Your task to perform on an android device: toggle wifi Image 0: 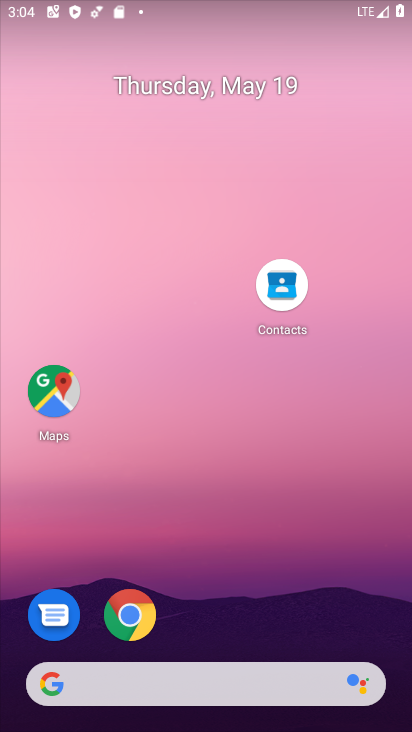
Step 0: drag from (271, 615) to (237, 133)
Your task to perform on an android device: toggle wifi Image 1: 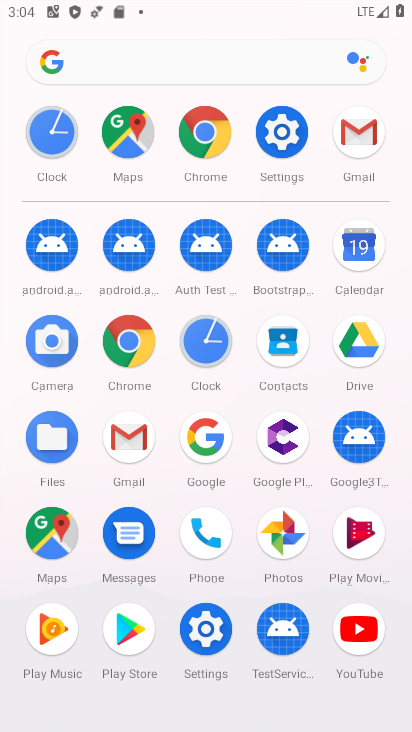
Step 1: click (291, 130)
Your task to perform on an android device: toggle wifi Image 2: 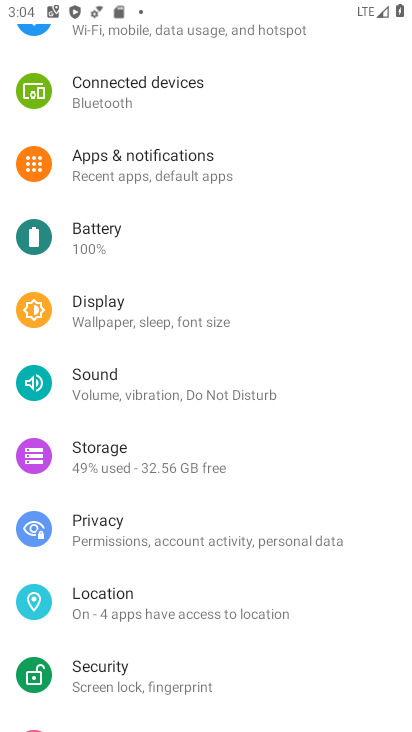
Step 2: drag from (272, 195) to (253, 666)
Your task to perform on an android device: toggle wifi Image 3: 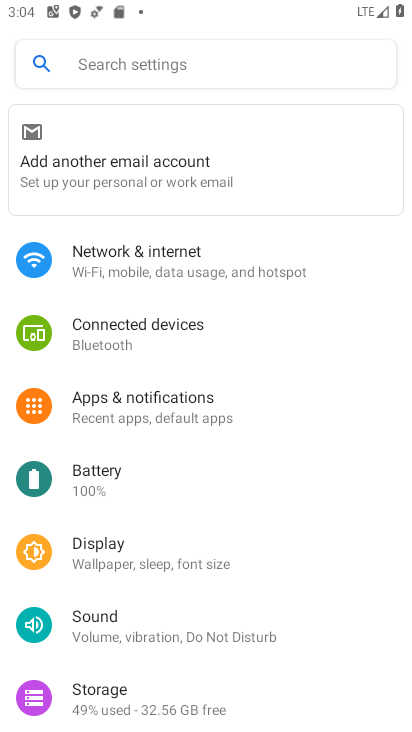
Step 3: click (156, 258)
Your task to perform on an android device: toggle wifi Image 4: 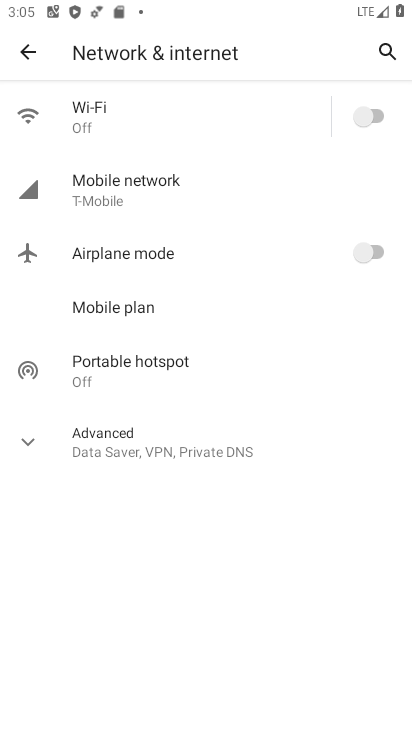
Step 4: click (385, 114)
Your task to perform on an android device: toggle wifi Image 5: 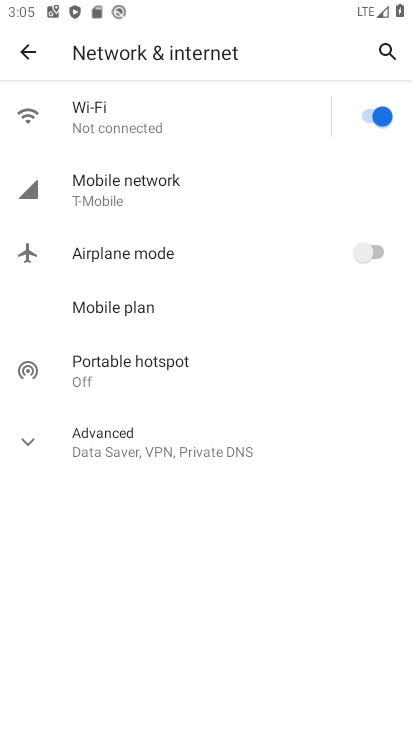
Step 5: task complete